Your task to perform on an android device: Open wifi settings Image 0: 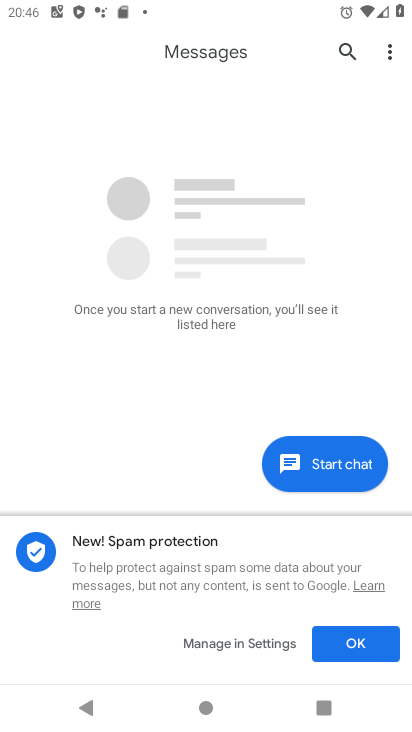
Step 0: press back button
Your task to perform on an android device: Open wifi settings Image 1: 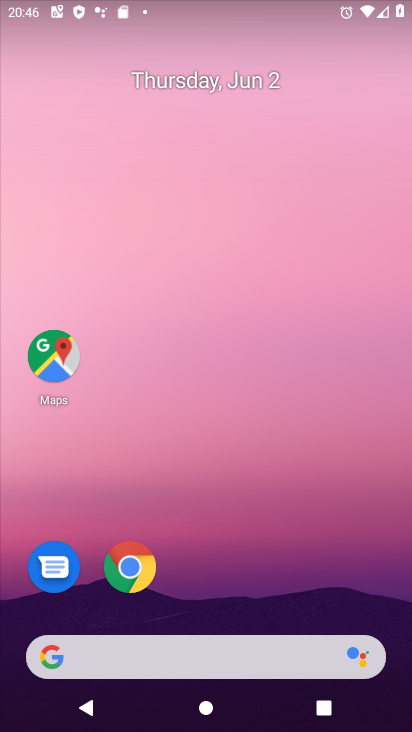
Step 1: drag from (263, 563) to (214, 114)
Your task to perform on an android device: Open wifi settings Image 2: 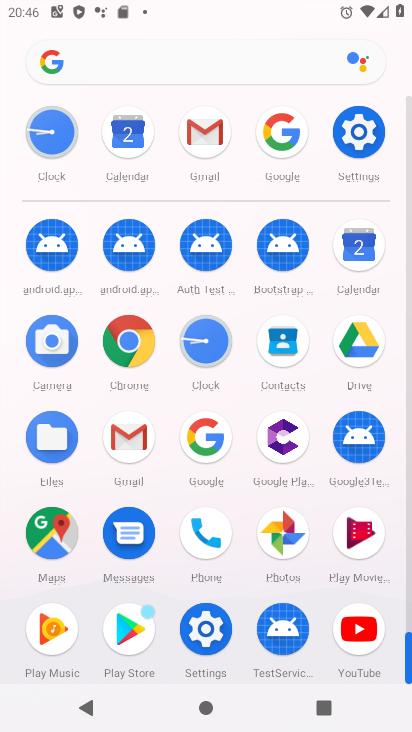
Step 2: click (358, 130)
Your task to perform on an android device: Open wifi settings Image 3: 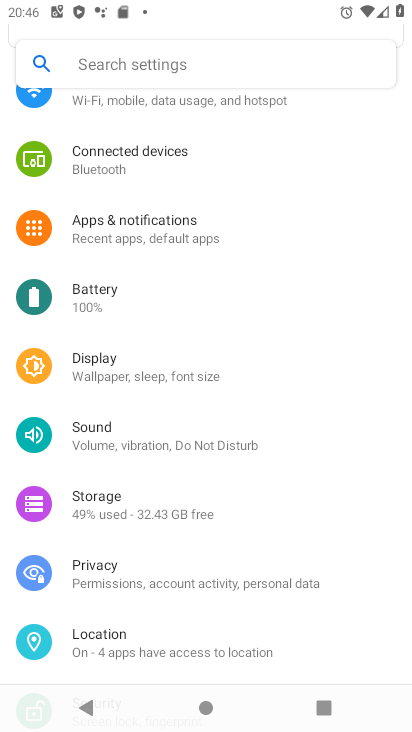
Step 3: drag from (194, 172) to (163, 274)
Your task to perform on an android device: Open wifi settings Image 4: 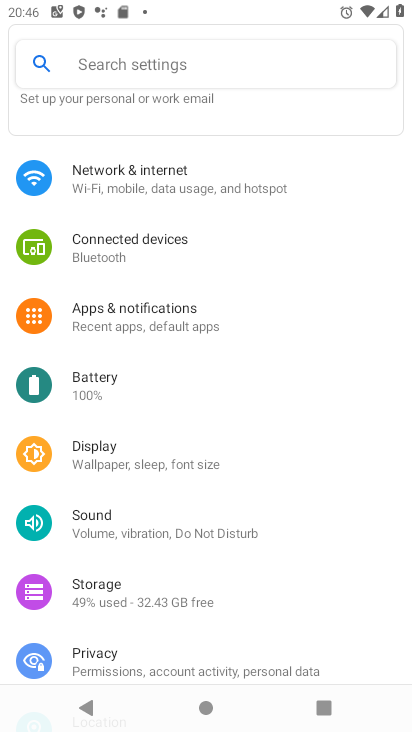
Step 4: click (171, 190)
Your task to perform on an android device: Open wifi settings Image 5: 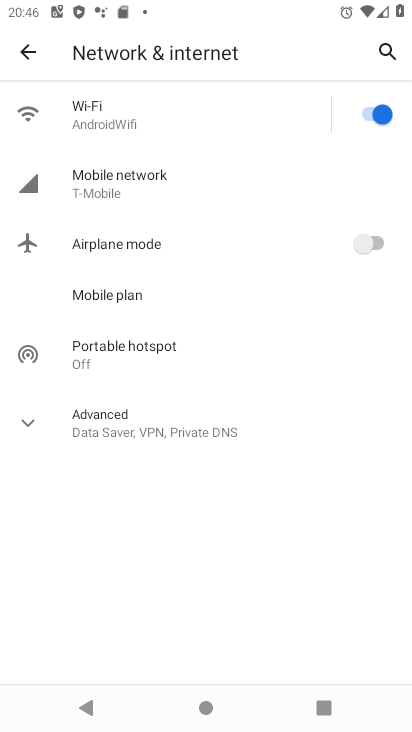
Step 5: click (125, 127)
Your task to perform on an android device: Open wifi settings Image 6: 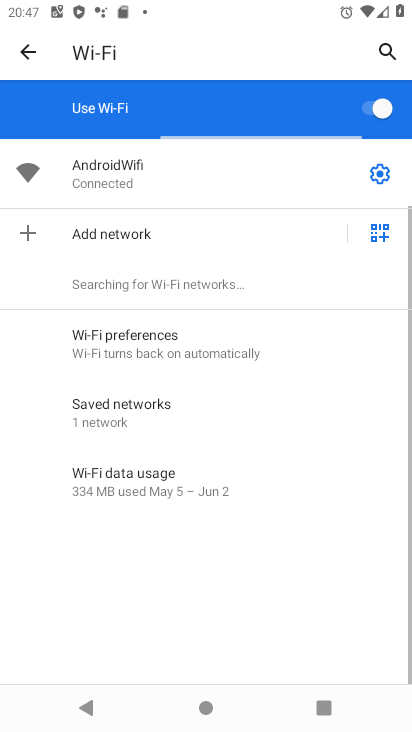
Step 6: click (378, 173)
Your task to perform on an android device: Open wifi settings Image 7: 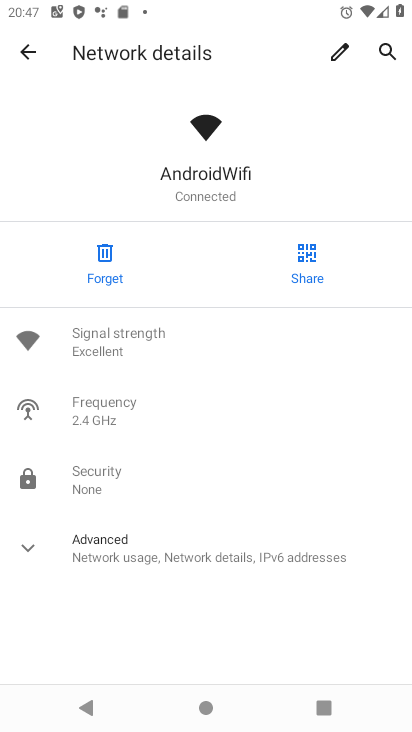
Step 7: task complete